Your task to perform on an android device: Go to CNN.com Image 0: 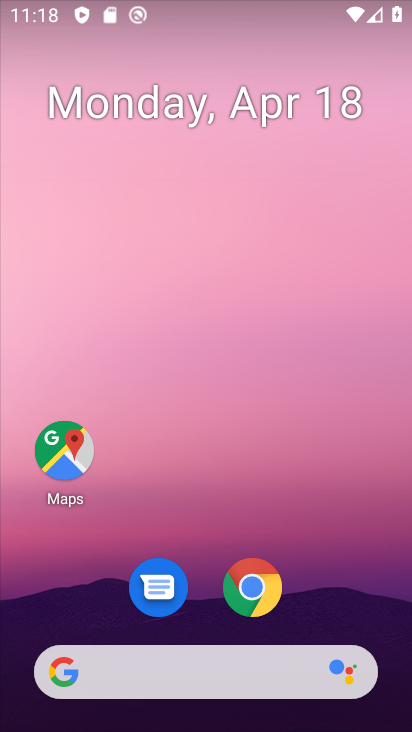
Step 0: drag from (321, 609) to (356, 5)
Your task to perform on an android device: Go to CNN.com Image 1: 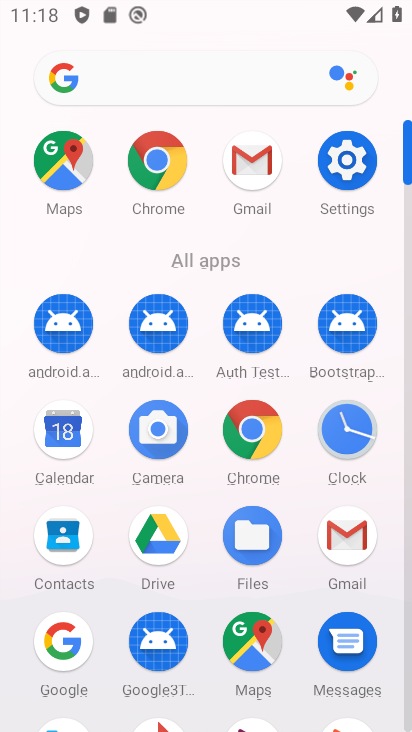
Step 1: click (245, 411)
Your task to perform on an android device: Go to CNN.com Image 2: 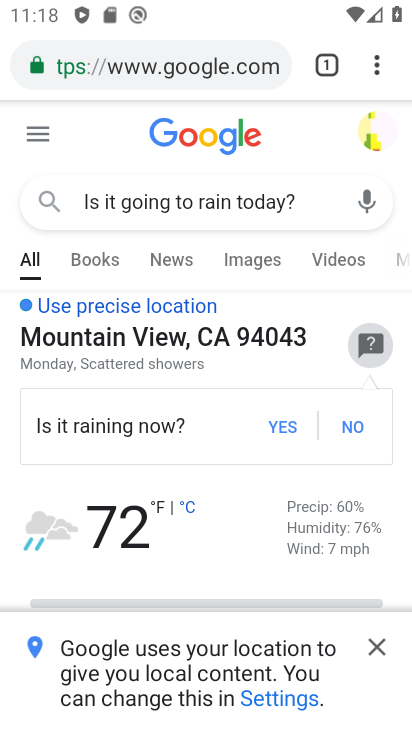
Step 2: click (172, 70)
Your task to perform on an android device: Go to CNN.com Image 3: 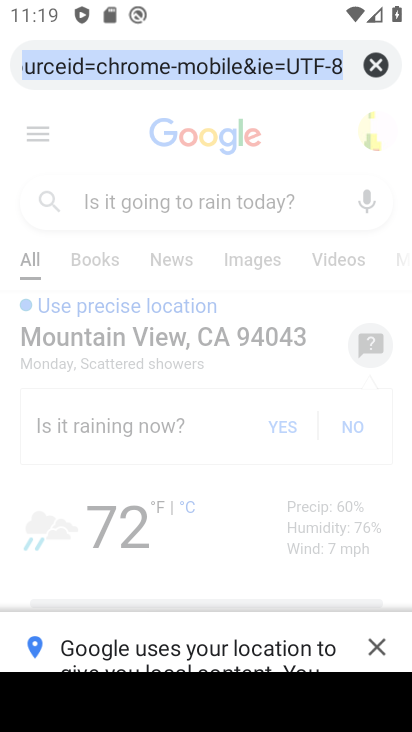
Step 3: click (372, 63)
Your task to perform on an android device: Go to CNN.com Image 4: 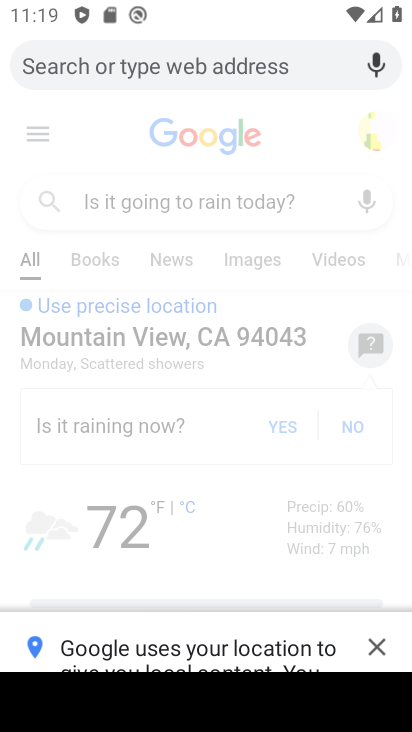
Step 4: type "CNN.com"
Your task to perform on an android device: Go to CNN.com Image 5: 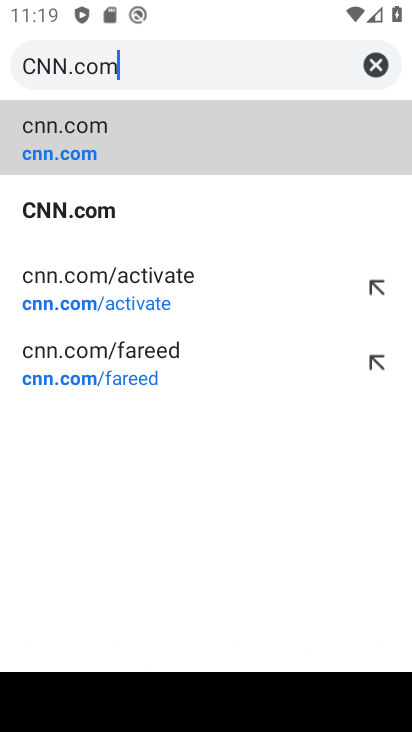
Step 5: click (59, 150)
Your task to perform on an android device: Go to CNN.com Image 6: 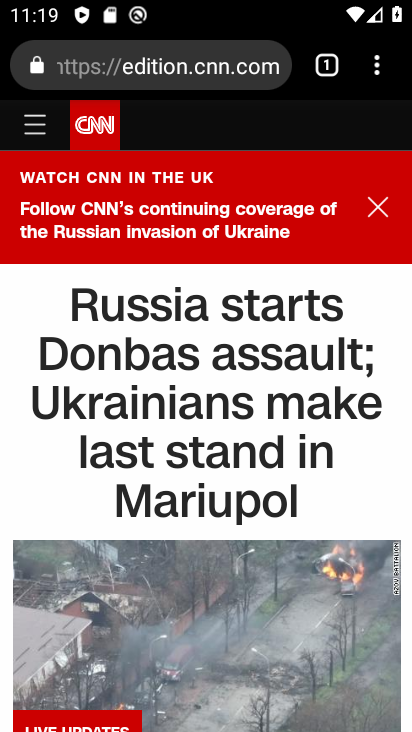
Step 6: task complete